Your task to perform on an android device: Search for sushi restaurants on Maps Image 0: 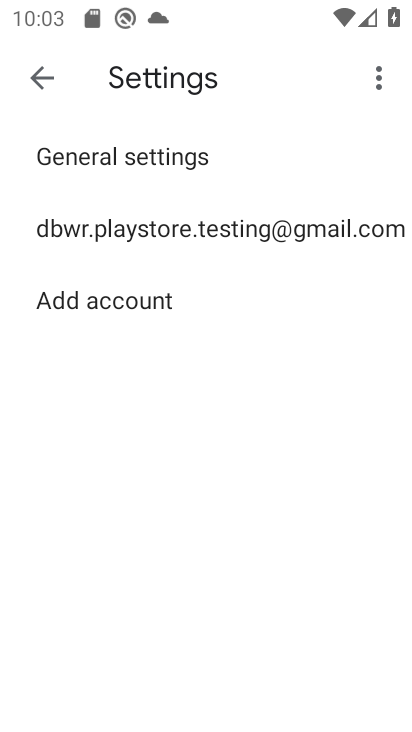
Step 0: press home button
Your task to perform on an android device: Search for sushi restaurants on Maps Image 1: 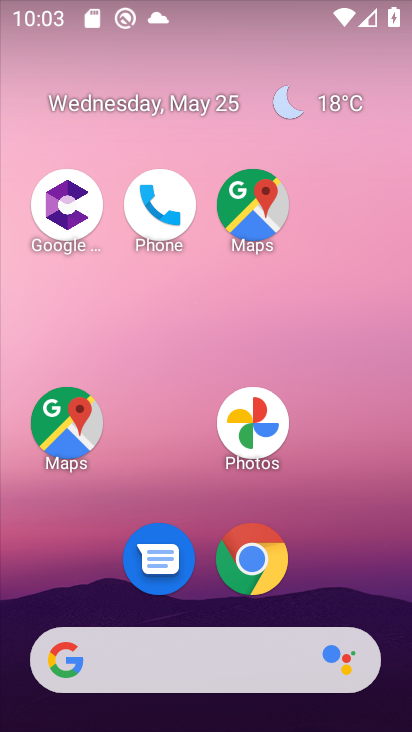
Step 1: click (74, 415)
Your task to perform on an android device: Search for sushi restaurants on Maps Image 2: 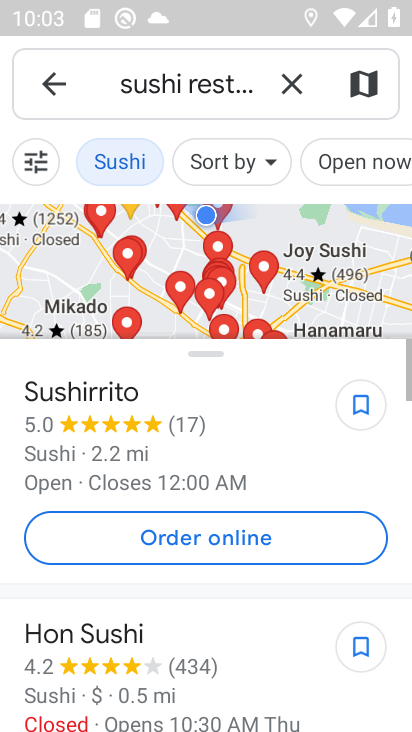
Step 2: task complete